Your task to perform on an android device: add a contact Image 0: 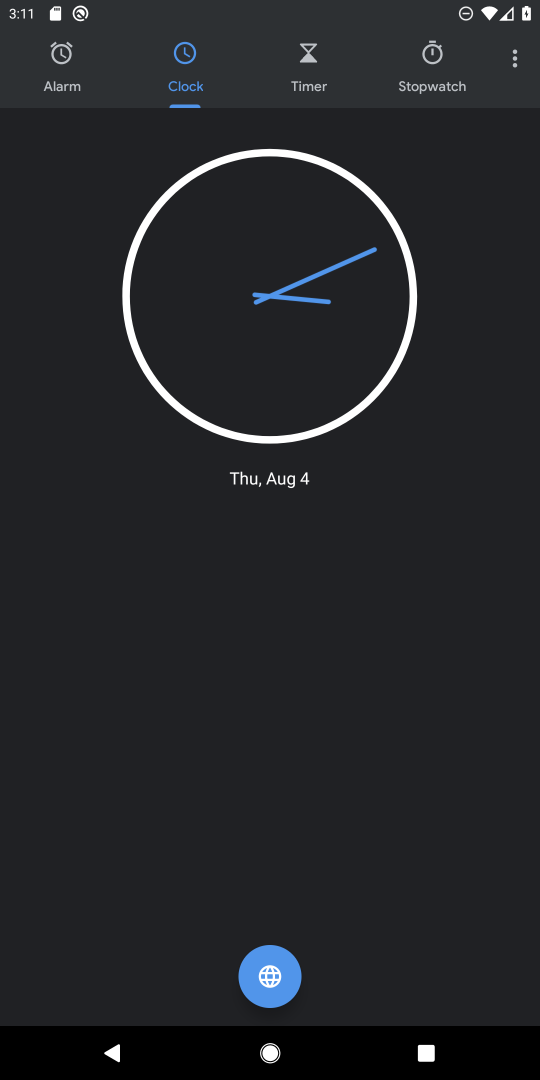
Step 0: press home button
Your task to perform on an android device: add a contact Image 1: 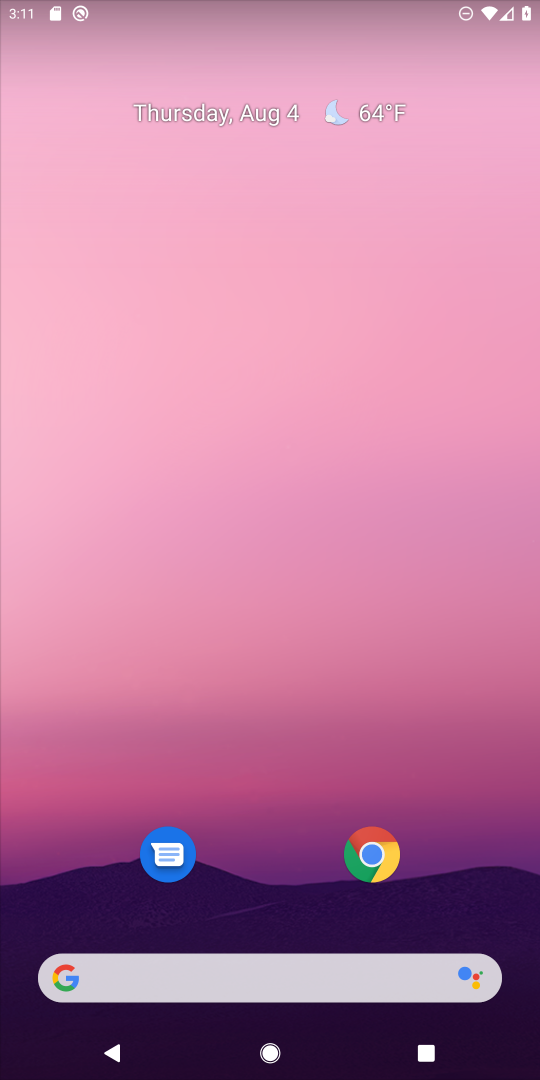
Step 1: drag from (193, 393) to (184, 245)
Your task to perform on an android device: add a contact Image 2: 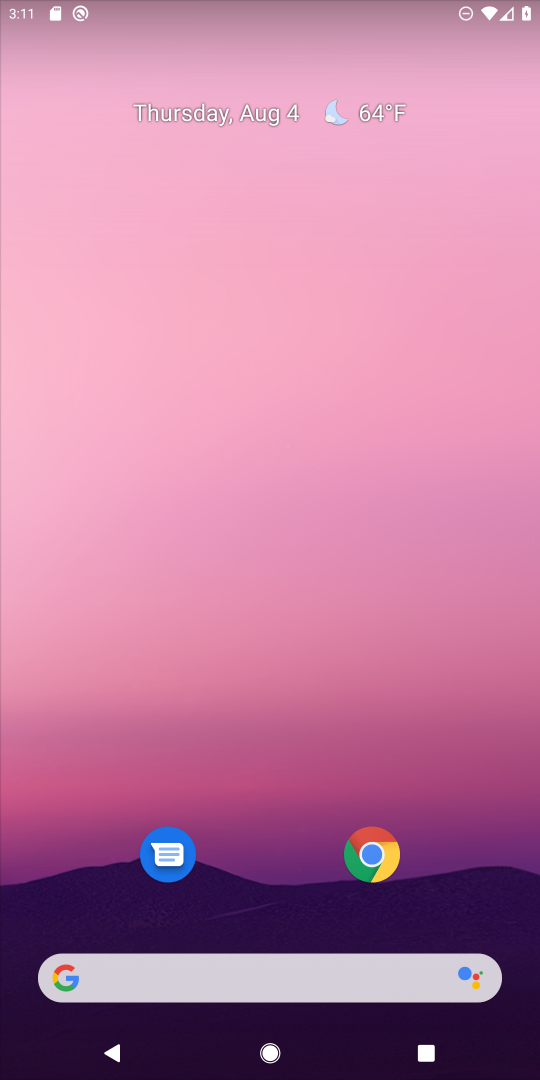
Step 2: drag from (342, 773) to (291, 117)
Your task to perform on an android device: add a contact Image 3: 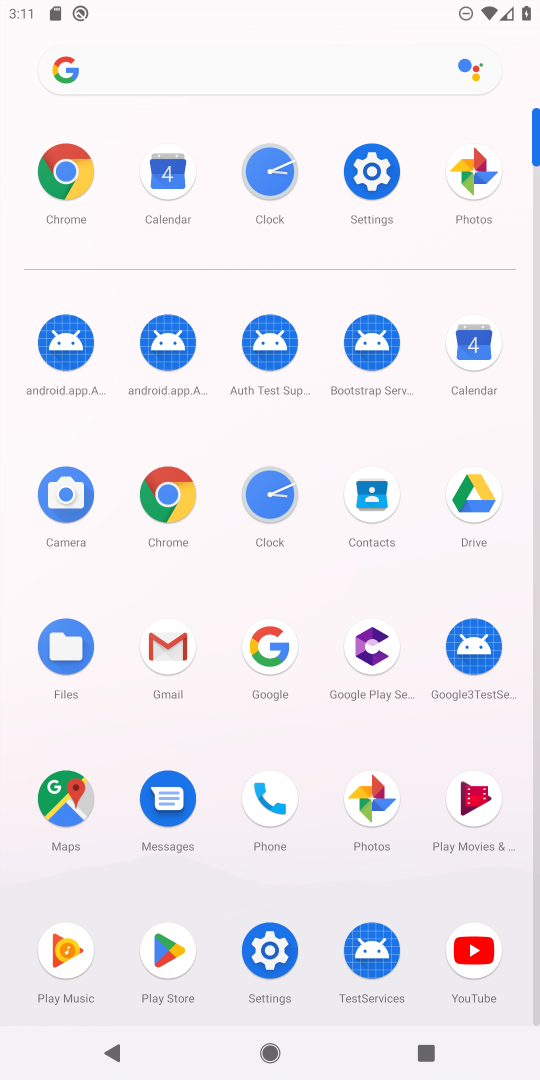
Step 3: click (372, 495)
Your task to perform on an android device: add a contact Image 4: 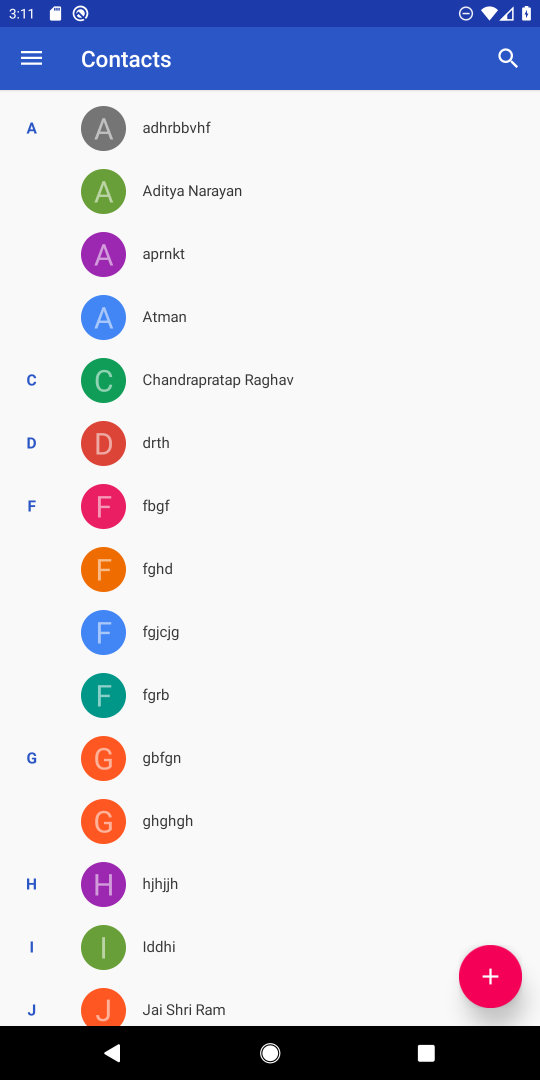
Step 4: click (482, 971)
Your task to perform on an android device: add a contact Image 5: 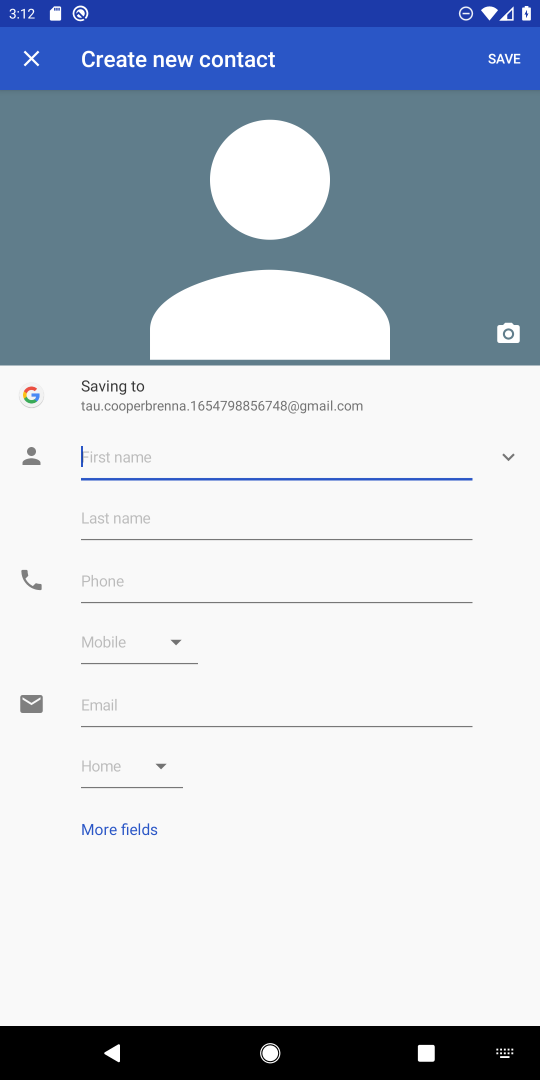
Step 5: type "ascds"
Your task to perform on an android device: add a contact Image 6: 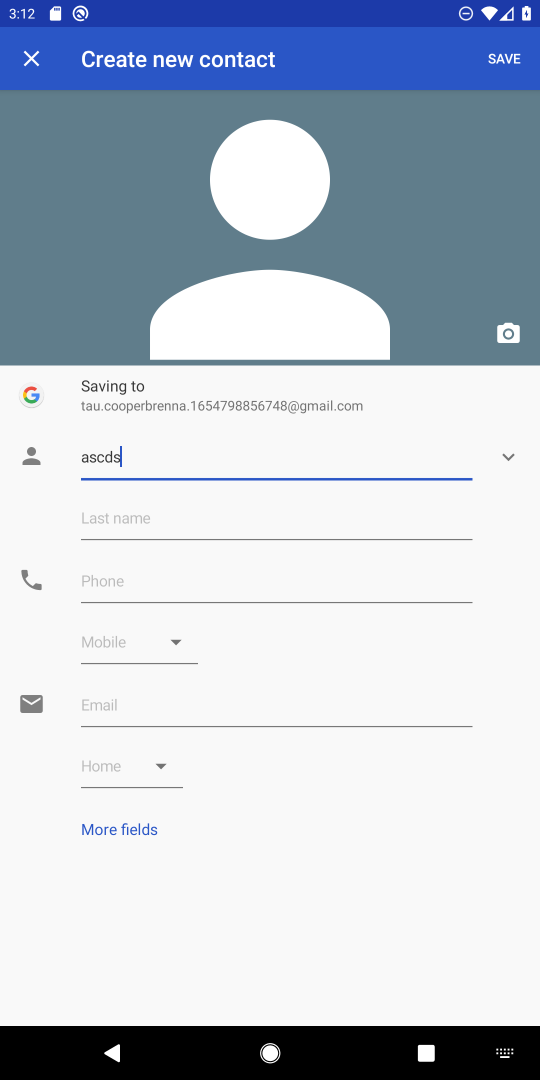
Step 6: type ""
Your task to perform on an android device: add a contact Image 7: 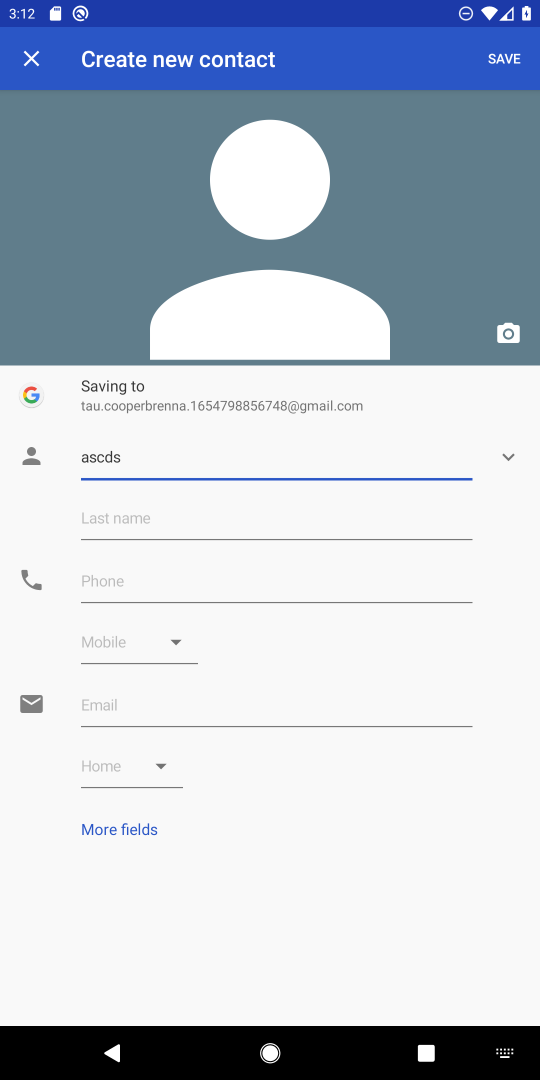
Step 7: press enter
Your task to perform on an android device: add a contact Image 8: 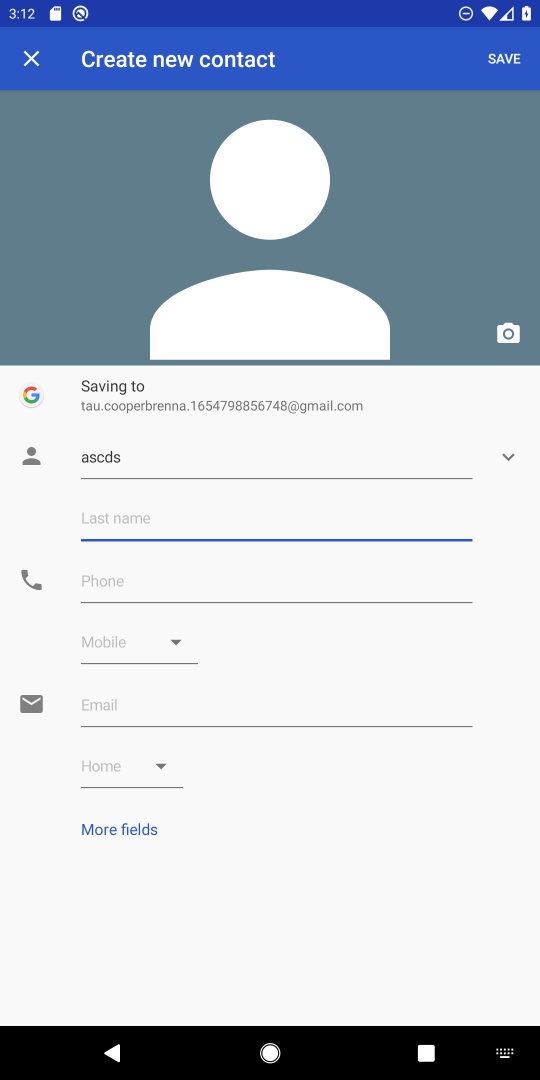
Step 8: click (169, 580)
Your task to perform on an android device: add a contact Image 9: 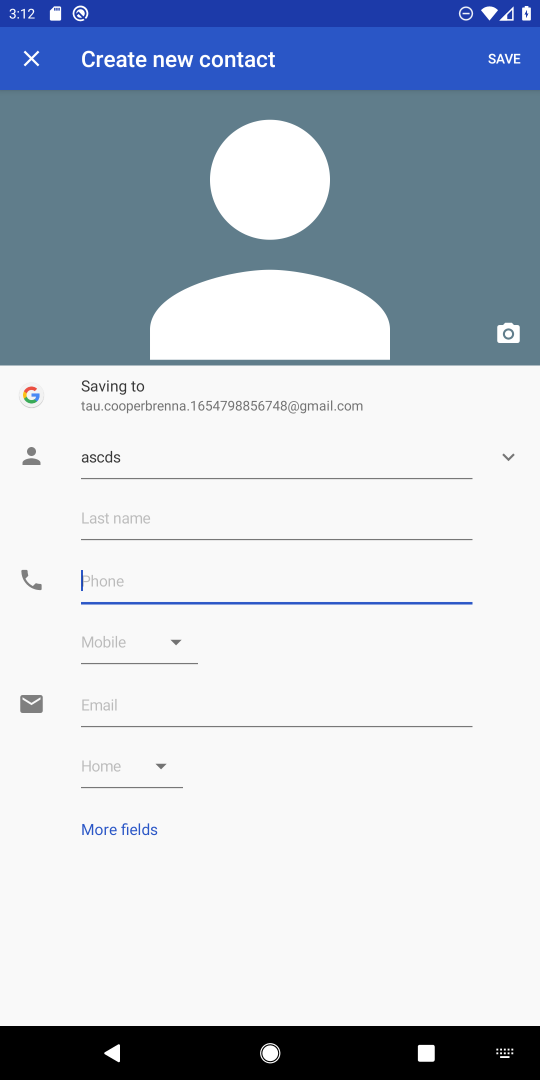
Step 9: type "35t53"
Your task to perform on an android device: add a contact Image 10: 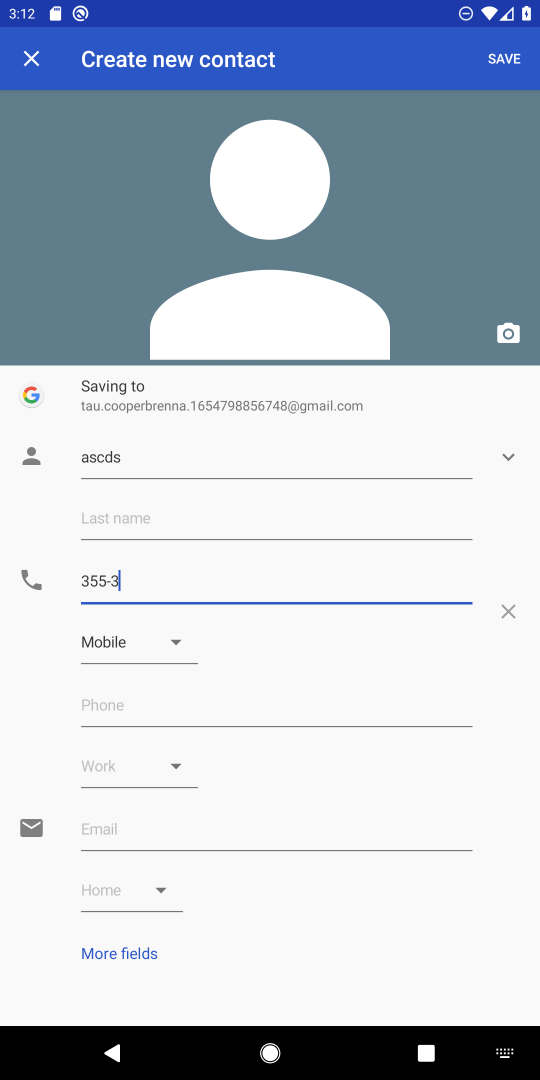
Step 10: press enter
Your task to perform on an android device: add a contact Image 11: 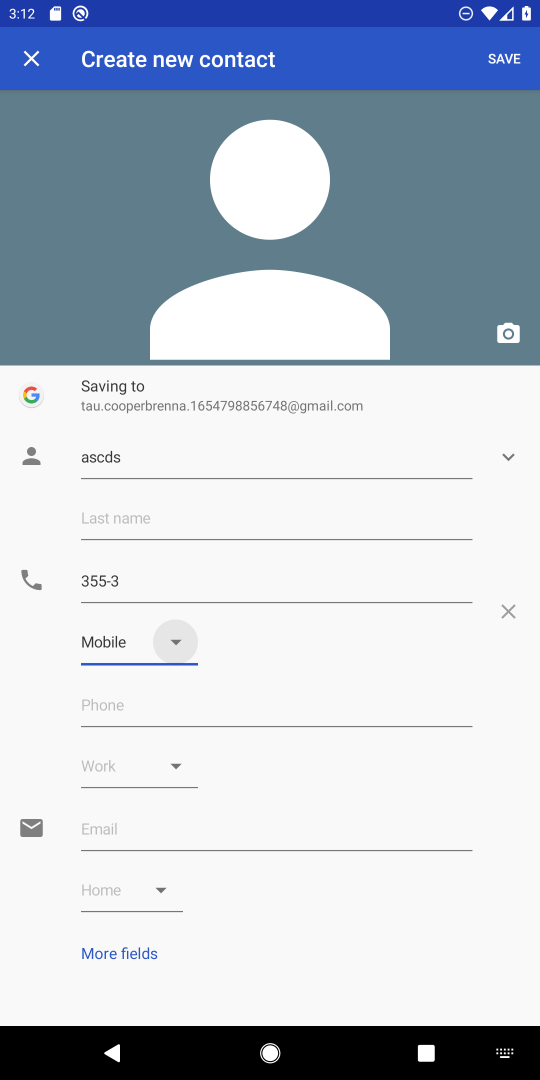
Step 11: click (494, 52)
Your task to perform on an android device: add a contact Image 12: 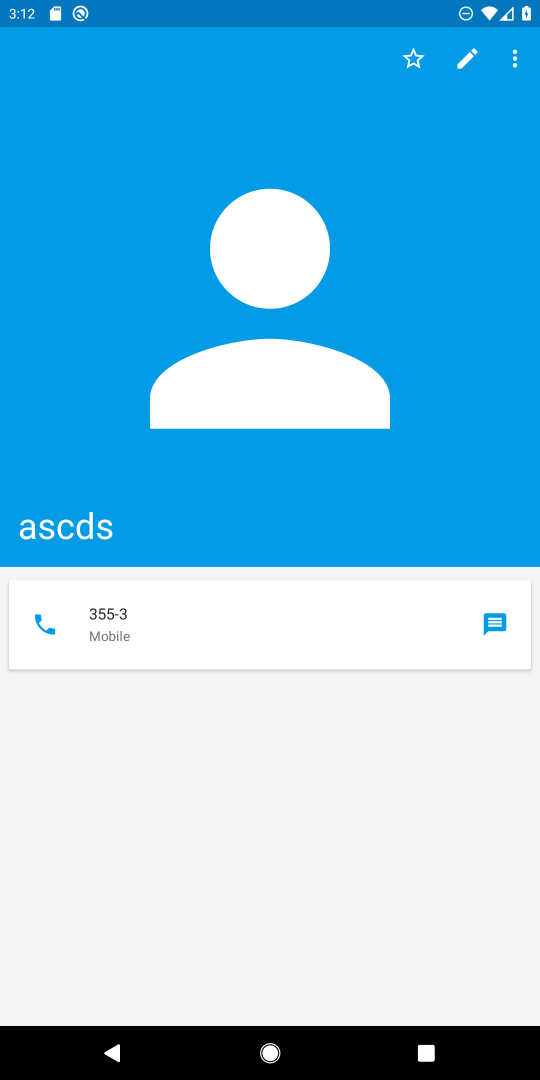
Step 12: task complete